Your task to perform on an android device: change notification settings in the gmail app Image 0: 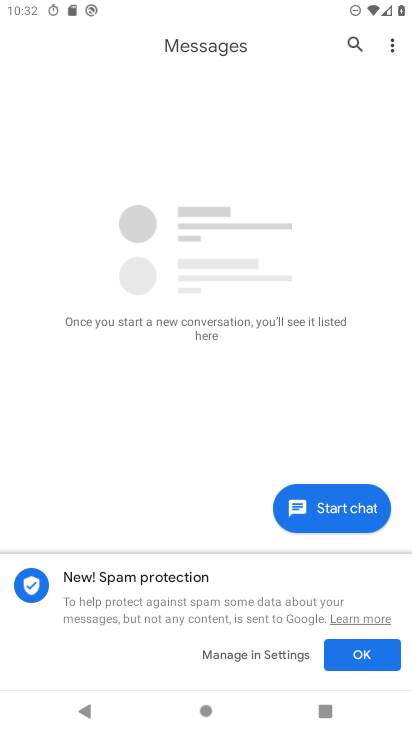
Step 0: press home button
Your task to perform on an android device: change notification settings in the gmail app Image 1: 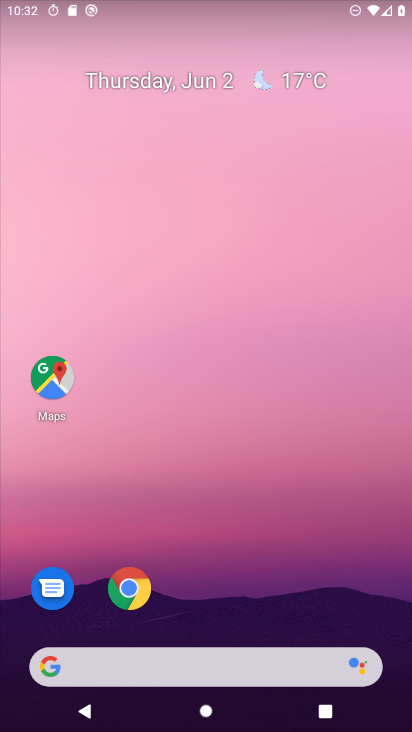
Step 1: drag from (270, 655) to (337, 154)
Your task to perform on an android device: change notification settings in the gmail app Image 2: 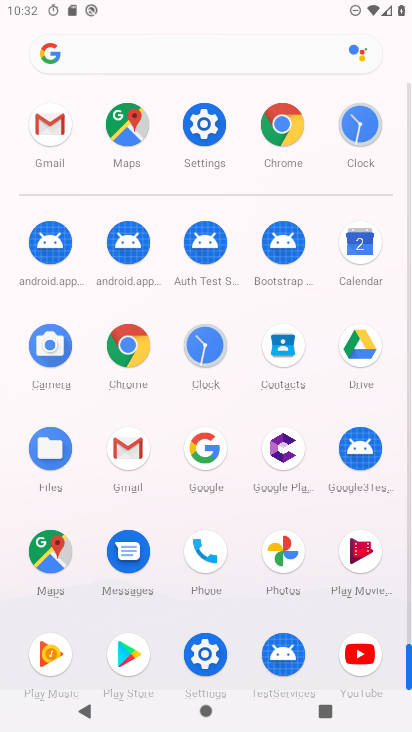
Step 2: click (134, 468)
Your task to perform on an android device: change notification settings in the gmail app Image 3: 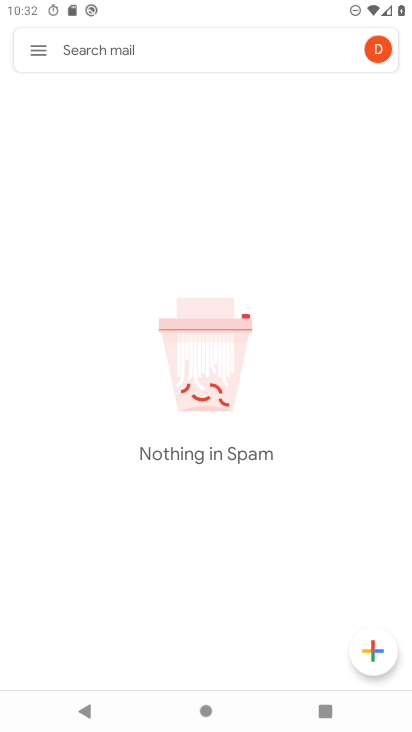
Step 3: click (40, 43)
Your task to perform on an android device: change notification settings in the gmail app Image 4: 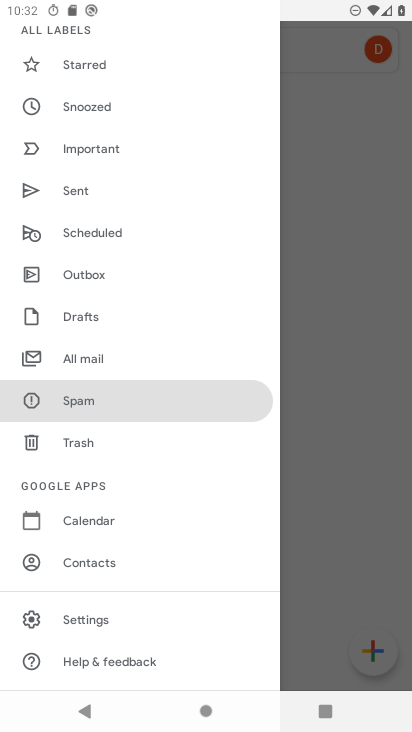
Step 4: drag from (98, 240) to (69, 575)
Your task to perform on an android device: change notification settings in the gmail app Image 5: 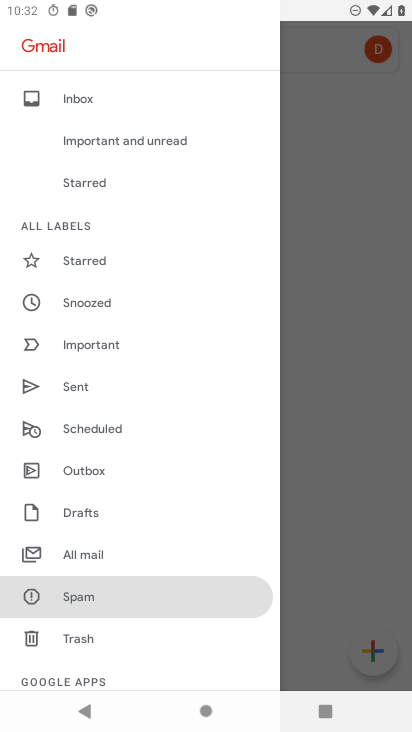
Step 5: drag from (142, 404) to (171, 312)
Your task to perform on an android device: change notification settings in the gmail app Image 6: 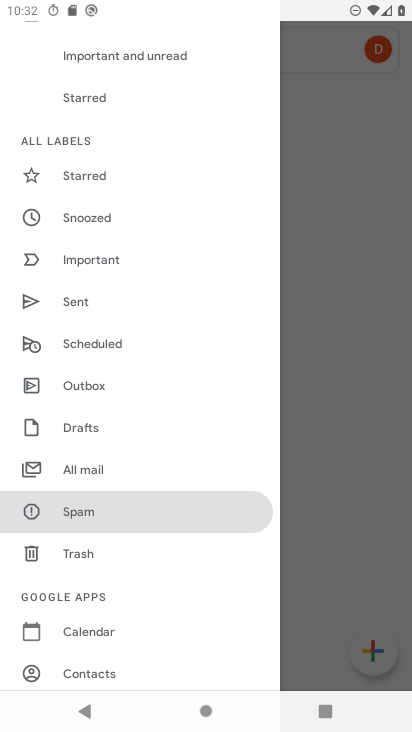
Step 6: drag from (94, 645) to (162, 349)
Your task to perform on an android device: change notification settings in the gmail app Image 7: 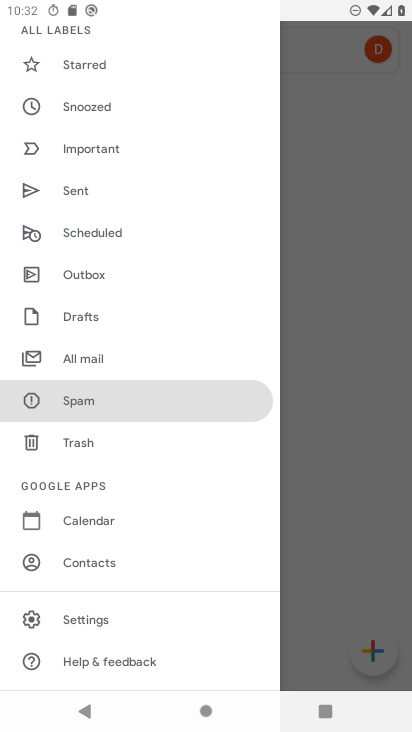
Step 7: click (88, 614)
Your task to perform on an android device: change notification settings in the gmail app Image 8: 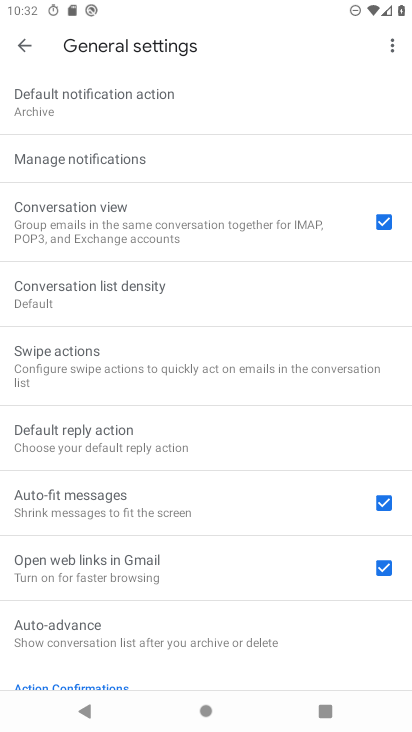
Step 8: click (173, 154)
Your task to perform on an android device: change notification settings in the gmail app Image 9: 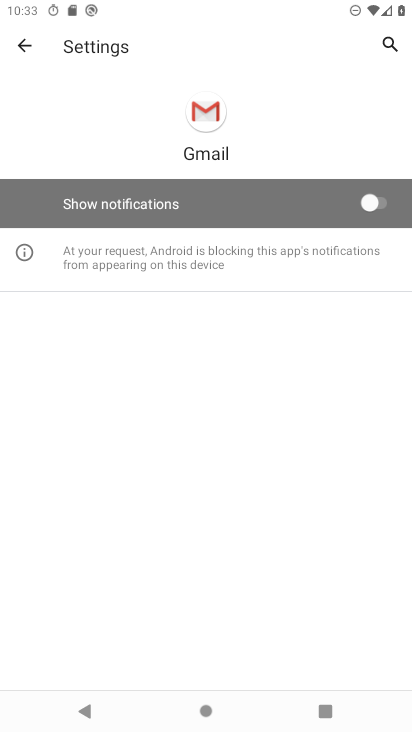
Step 9: click (376, 212)
Your task to perform on an android device: change notification settings in the gmail app Image 10: 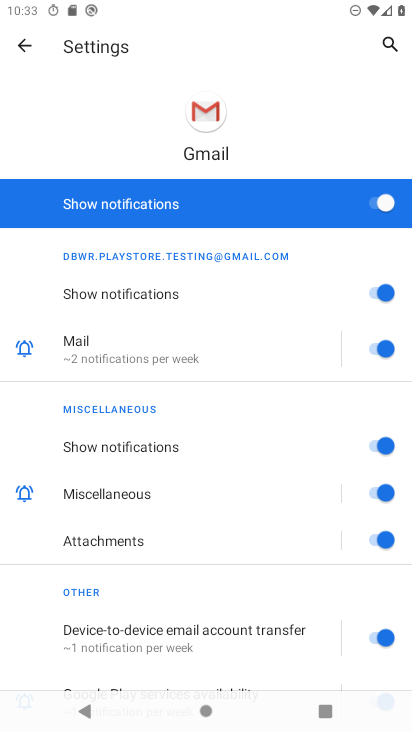
Step 10: task complete